Your task to perform on an android device: turn on the 12-hour format for clock Image 0: 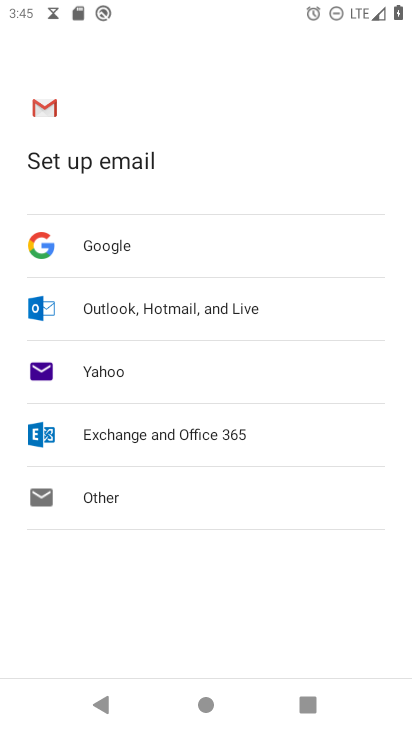
Step 0: press home button
Your task to perform on an android device: turn on the 12-hour format for clock Image 1: 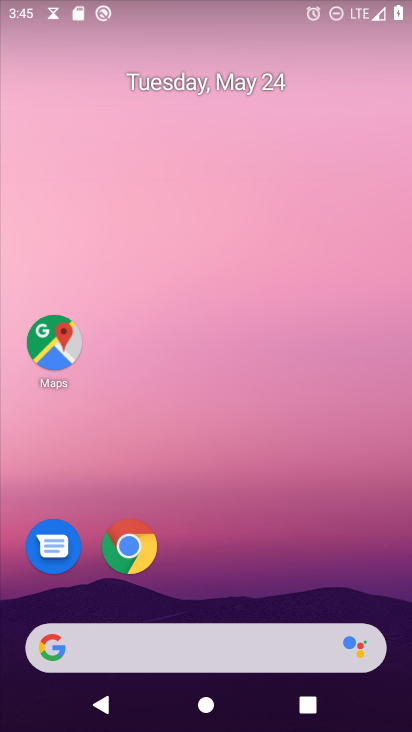
Step 1: drag from (195, 668) to (197, 71)
Your task to perform on an android device: turn on the 12-hour format for clock Image 2: 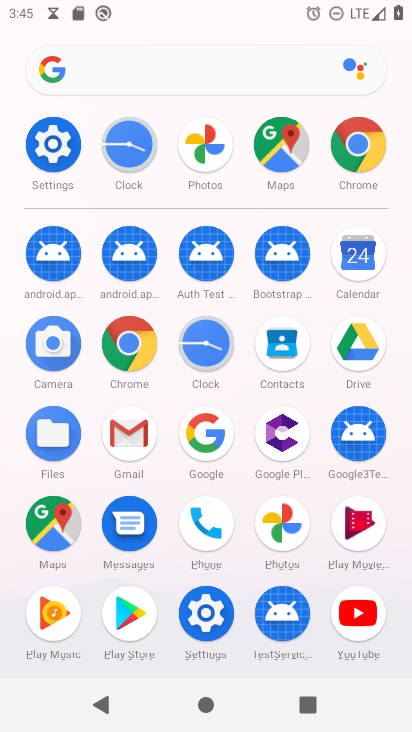
Step 2: click (210, 340)
Your task to perform on an android device: turn on the 12-hour format for clock Image 3: 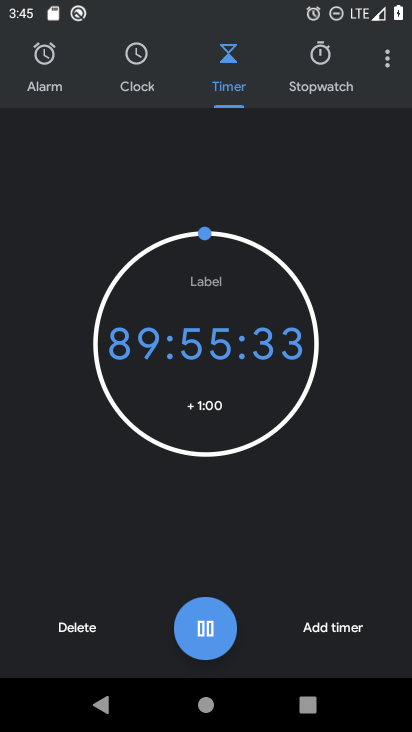
Step 3: click (388, 58)
Your task to perform on an android device: turn on the 12-hour format for clock Image 4: 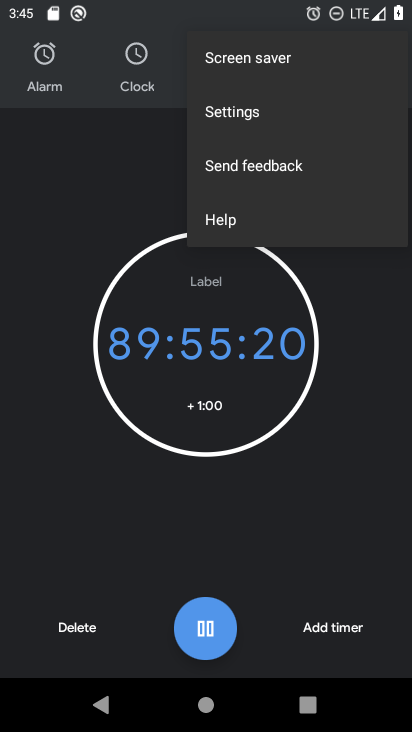
Step 4: click (256, 112)
Your task to perform on an android device: turn on the 12-hour format for clock Image 5: 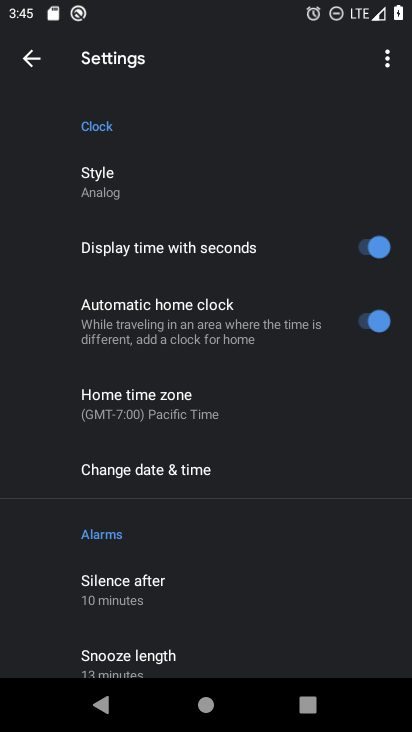
Step 5: click (177, 478)
Your task to perform on an android device: turn on the 12-hour format for clock Image 6: 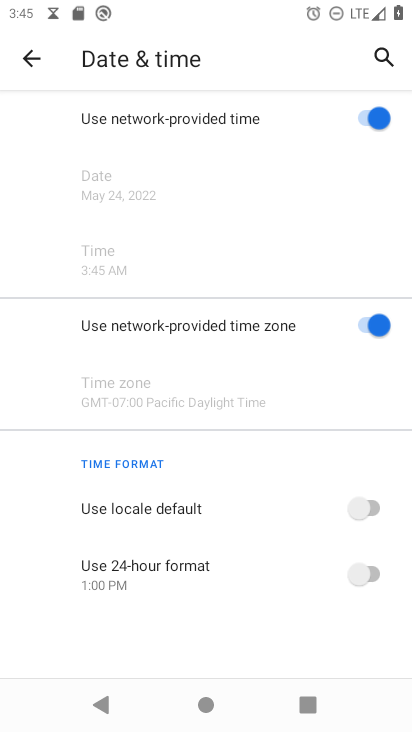
Step 6: task complete